Your task to perform on an android device: turn off smart reply in the gmail app Image 0: 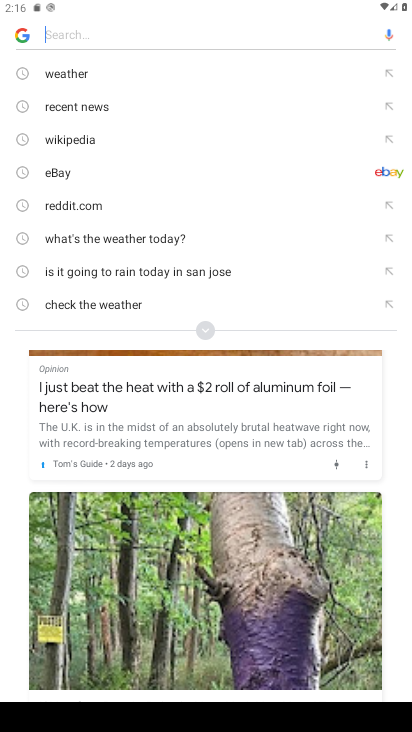
Step 0: press home button
Your task to perform on an android device: turn off smart reply in the gmail app Image 1: 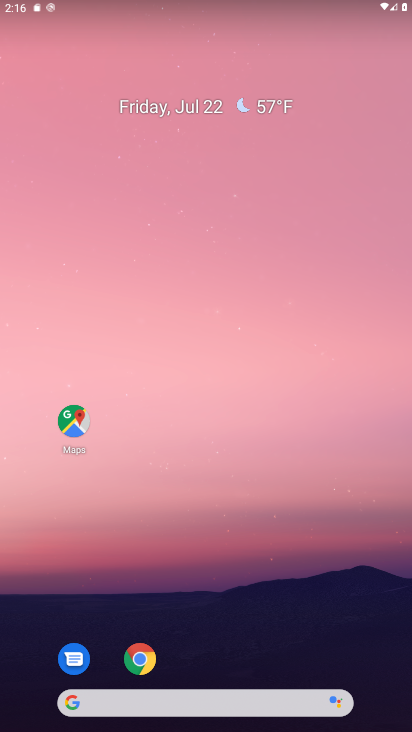
Step 1: drag from (250, 652) to (229, 196)
Your task to perform on an android device: turn off smart reply in the gmail app Image 2: 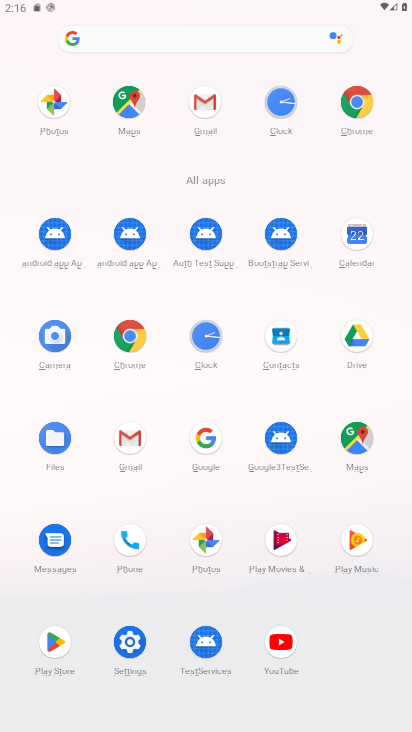
Step 2: click (207, 102)
Your task to perform on an android device: turn off smart reply in the gmail app Image 3: 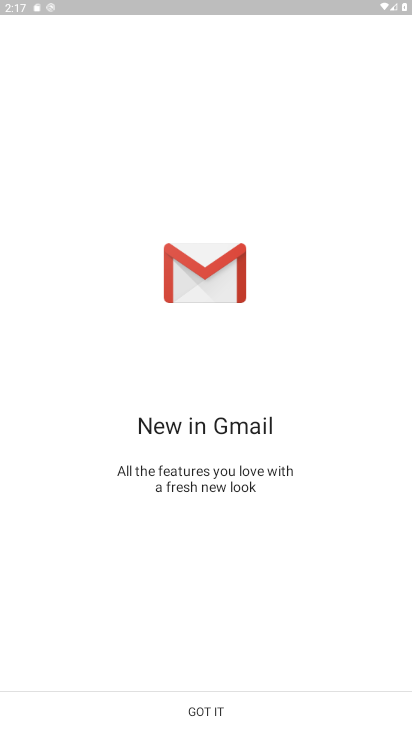
Step 3: click (207, 715)
Your task to perform on an android device: turn off smart reply in the gmail app Image 4: 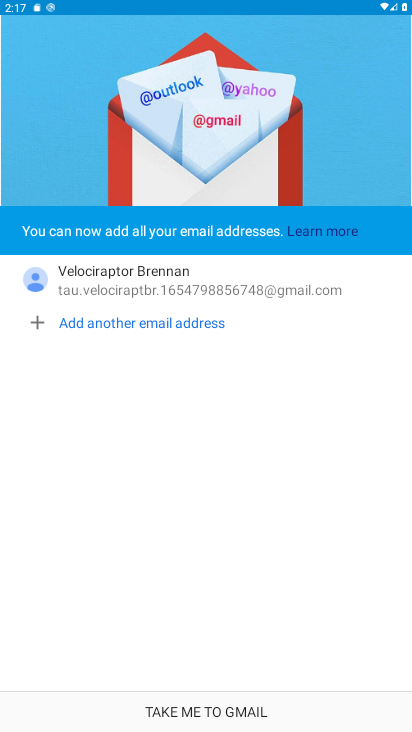
Step 4: click (207, 715)
Your task to perform on an android device: turn off smart reply in the gmail app Image 5: 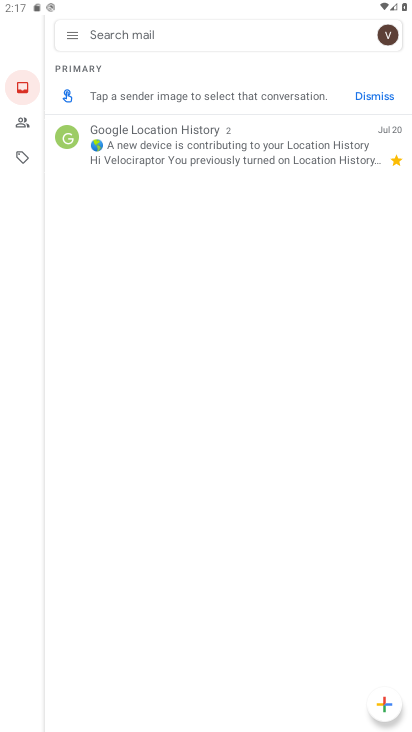
Step 5: click (73, 37)
Your task to perform on an android device: turn off smart reply in the gmail app Image 6: 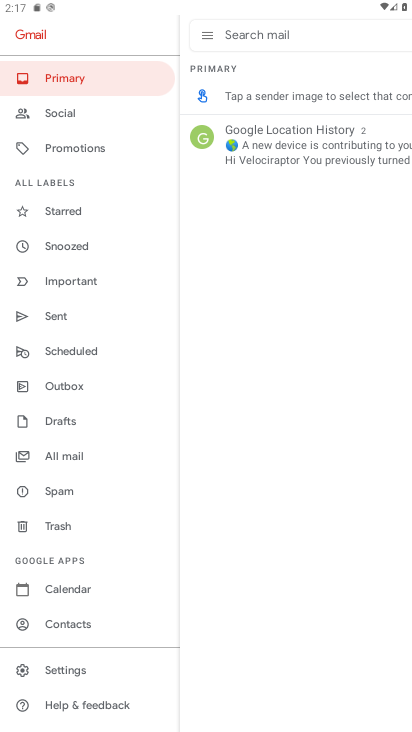
Step 6: click (96, 675)
Your task to perform on an android device: turn off smart reply in the gmail app Image 7: 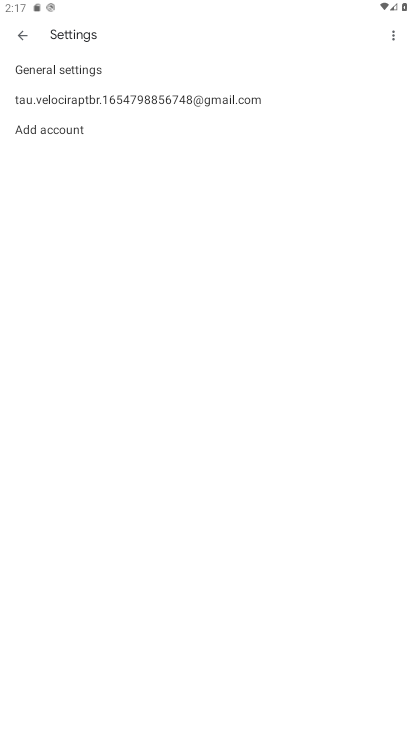
Step 7: click (197, 93)
Your task to perform on an android device: turn off smart reply in the gmail app Image 8: 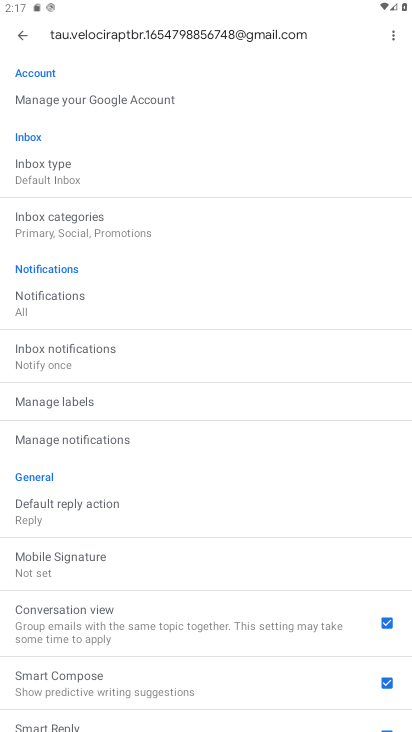
Step 8: drag from (220, 585) to (207, 300)
Your task to perform on an android device: turn off smart reply in the gmail app Image 9: 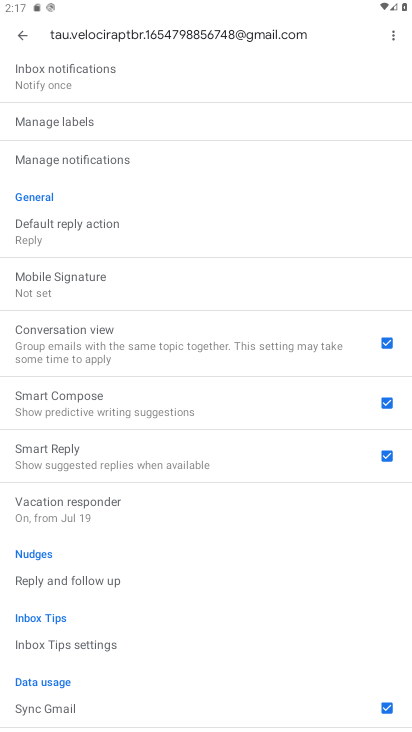
Step 9: click (384, 443)
Your task to perform on an android device: turn off smart reply in the gmail app Image 10: 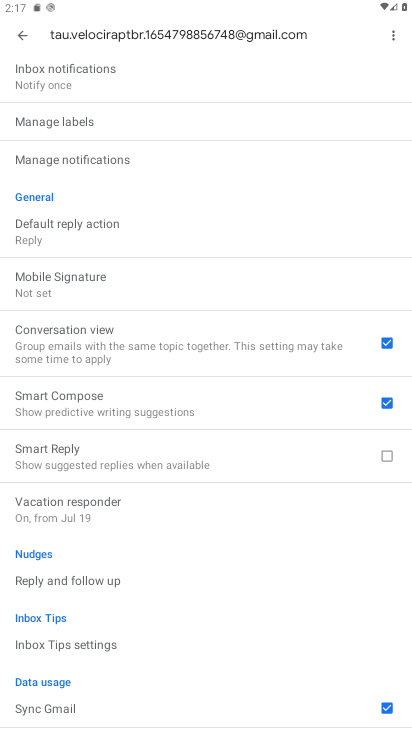
Step 10: task complete